Your task to perform on an android device: toggle wifi Image 0: 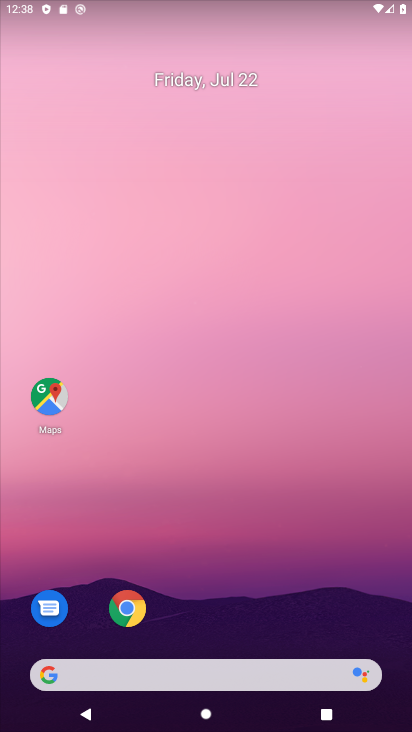
Step 0: press home button
Your task to perform on an android device: toggle wifi Image 1: 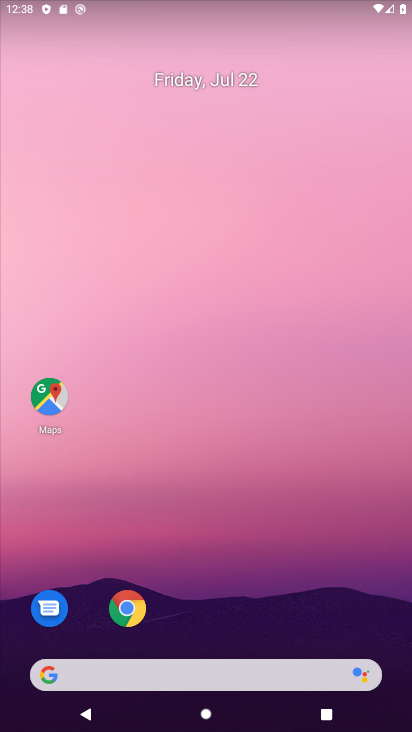
Step 1: drag from (213, 643) to (231, 148)
Your task to perform on an android device: toggle wifi Image 2: 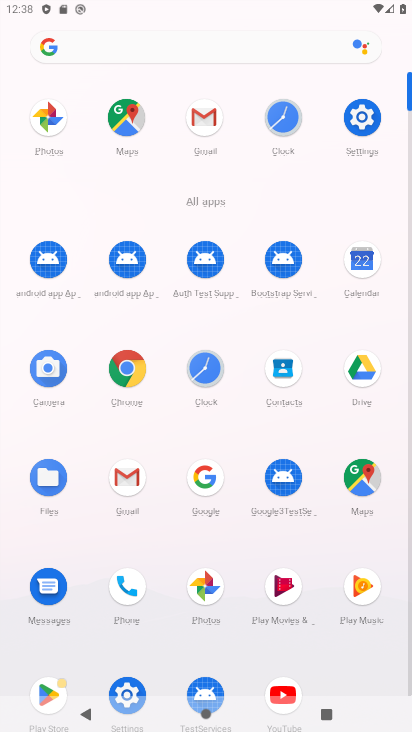
Step 2: drag from (187, 5) to (158, 393)
Your task to perform on an android device: toggle wifi Image 3: 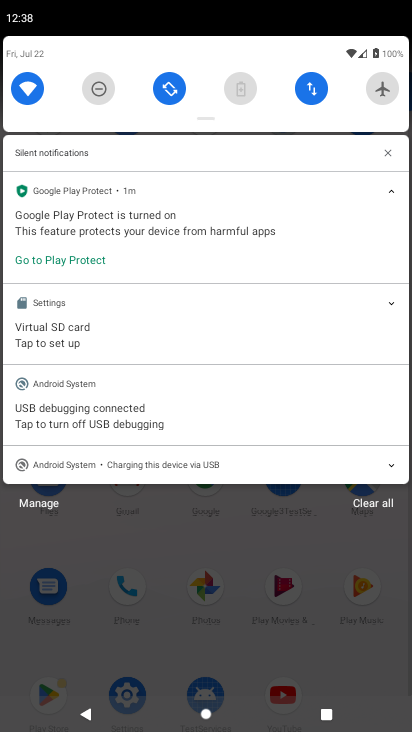
Step 3: click (32, 87)
Your task to perform on an android device: toggle wifi Image 4: 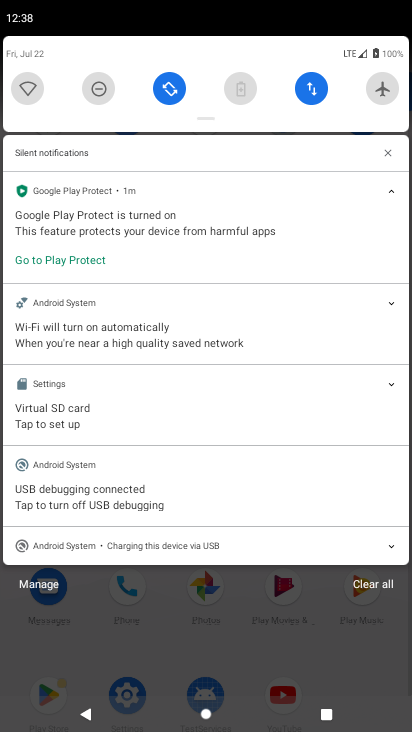
Step 4: task complete